Your task to perform on an android device: turn on the 24-hour format for clock Image 0: 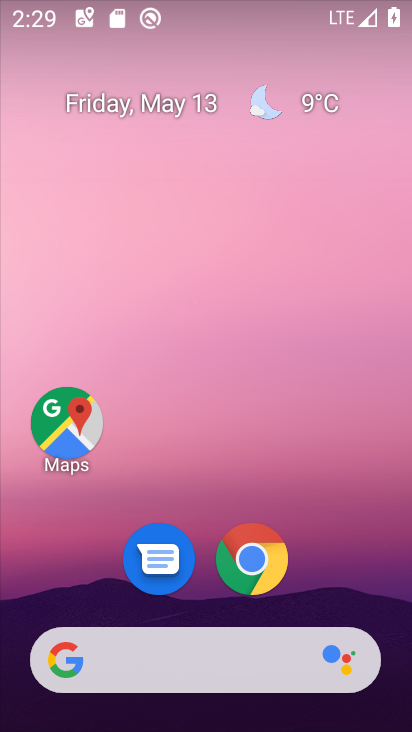
Step 0: drag from (367, 455) to (347, 328)
Your task to perform on an android device: turn on the 24-hour format for clock Image 1: 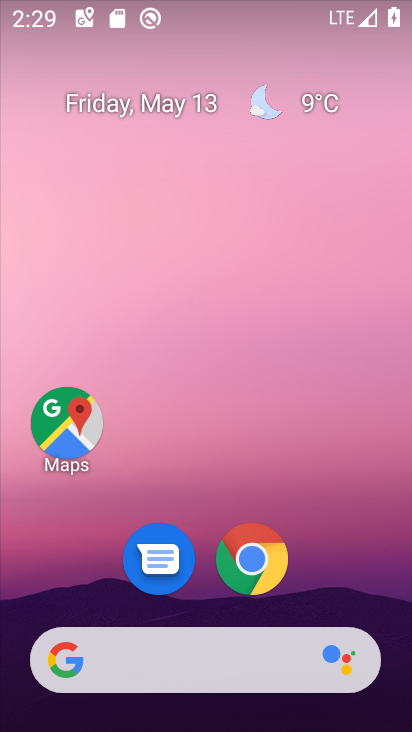
Step 1: drag from (408, 630) to (393, 225)
Your task to perform on an android device: turn on the 24-hour format for clock Image 2: 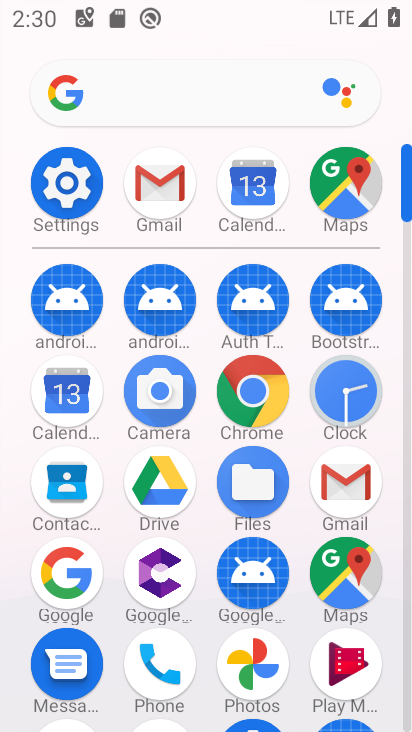
Step 2: click (60, 202)
Your task to perform on an android device: turn on the 24-hour format for clock Image 3: 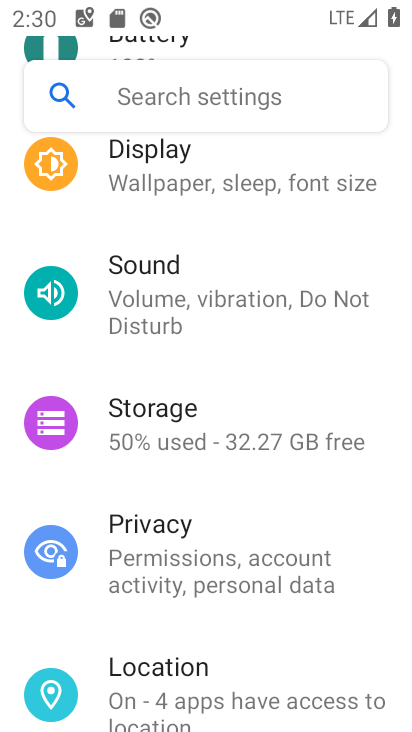
Step 3: drag from (376, 664) to (355, 323)
Your task to perform on an android device: turn on the 24-hour format for clock Image 4: 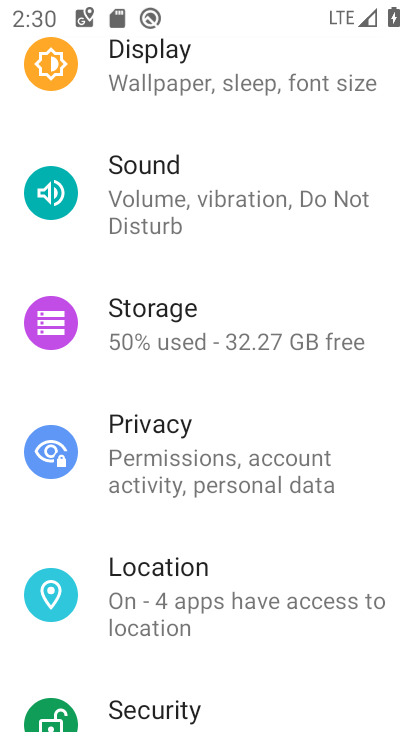
Step 4: drag from (364, 703) to (384, 394)
Your task to perform on an android device: turn on the 24-hour format for clock Image 5: 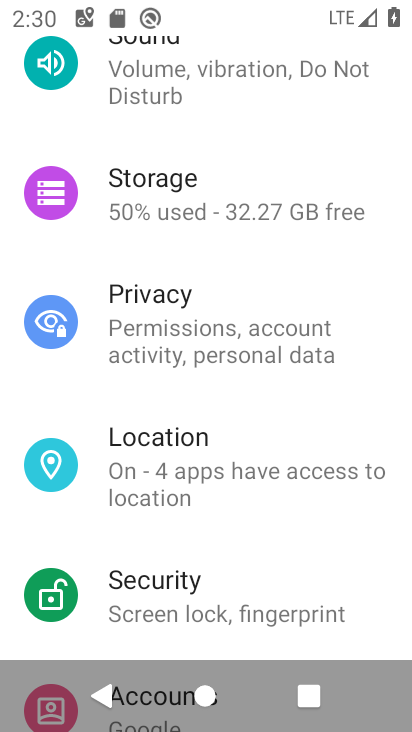
Step 5: press home button
Your task to perform on an android device: turn on the 24-hour format for clock Image 6: 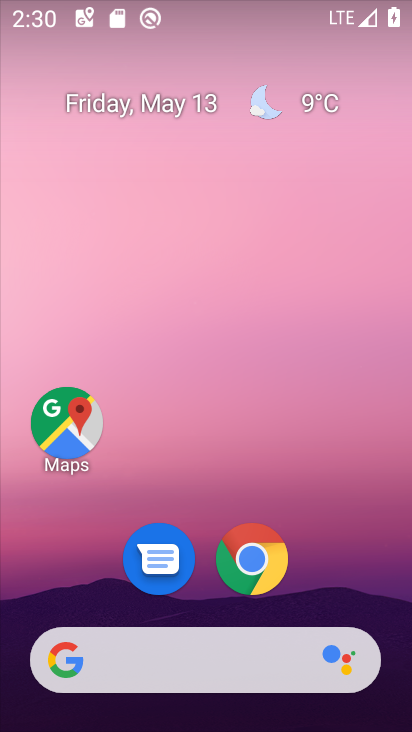
Step 6: drag from (391, 628) to (365, 300)
Your task to perform on an android device: turn on the 24-hour format for clock Image 7: 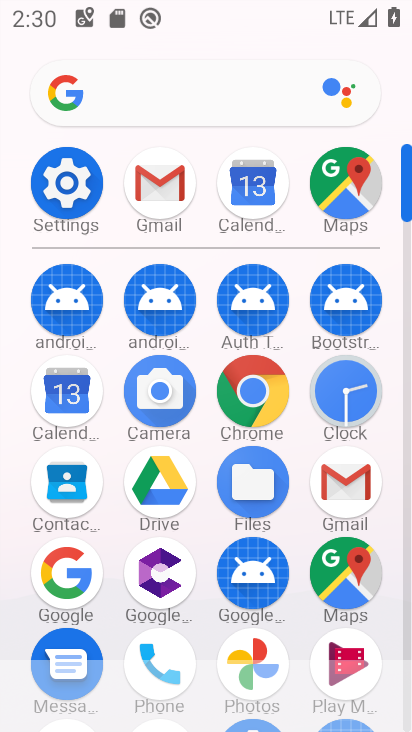
Step 7: click (61, 194)
Your task to perform on an android device: turn on the 24-hour format for clock Image 8: 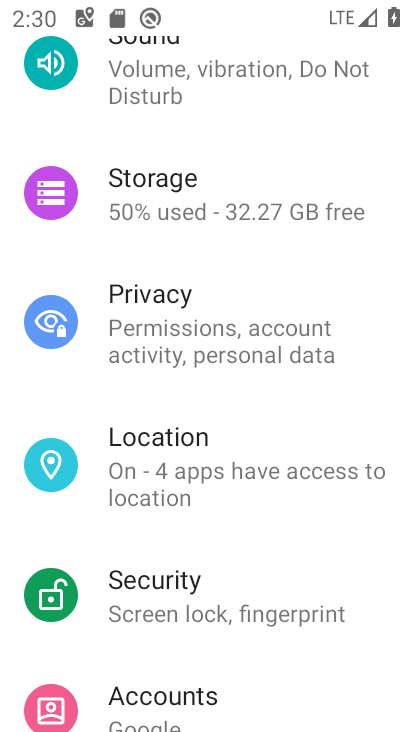
Step 8: drag from (274, 153) to (311, 534)
Your task to perform on an android device: turn on the 24-hour format for clock Image 9: 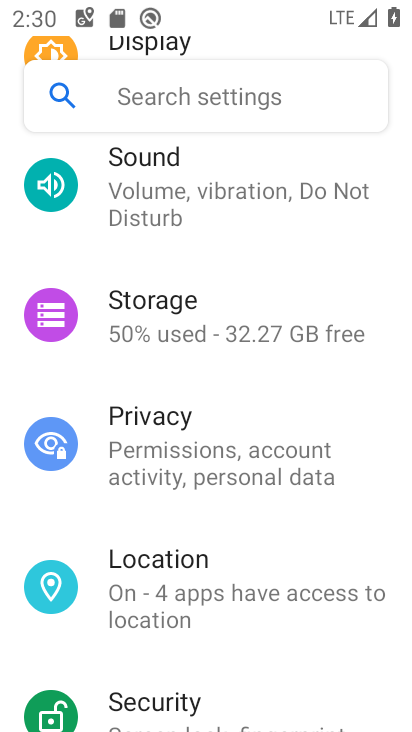
Step 9: drag from (275, 186) to (320, 473)
Your task to perform on an android device: turn on the 24-hour format for clock Image 10: 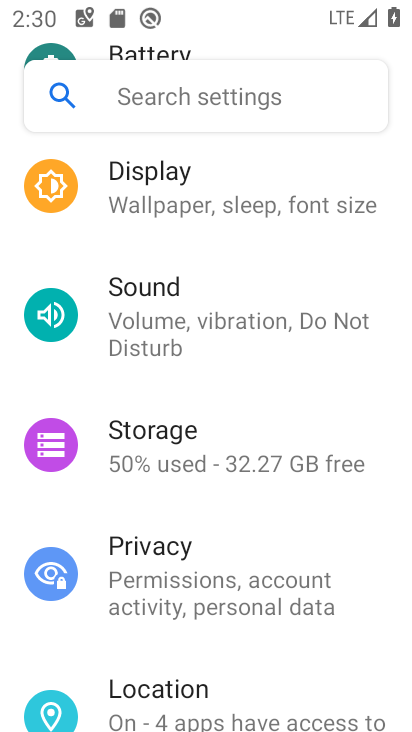
Step 10: press back button
Your task to perform on an android device: turn on the 24-hour format for clock Image 11: 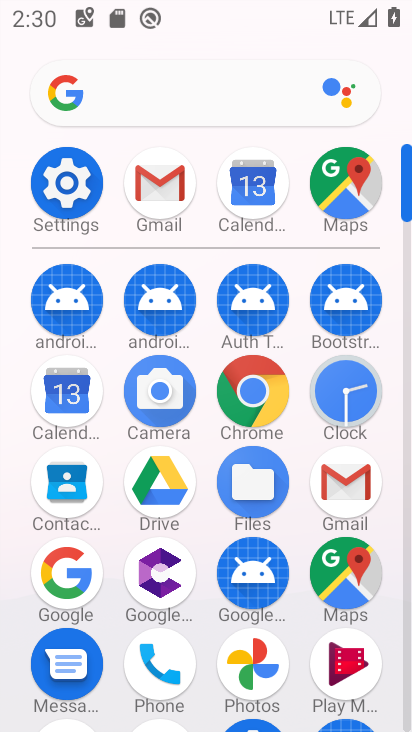
Step 11: click (342, 394)
Your task to perform on an android device: turn on the 24-hour format for clock Image 12: 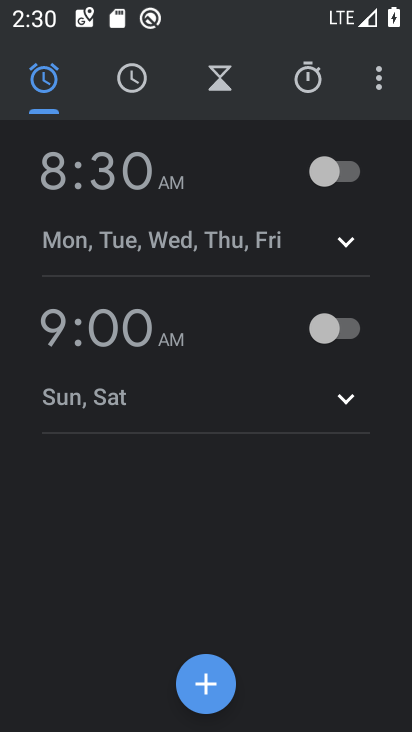
Step 12: click (383, 72)
Your task to perform on an android device: turn on the 24-hour format for clock Image 13: 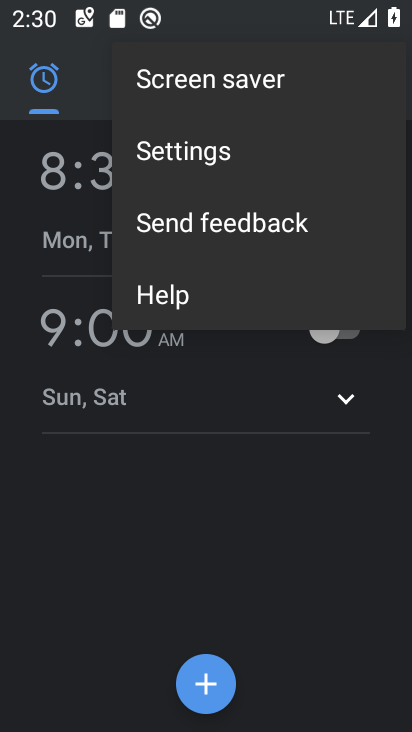
Step 13: click (211, 161)
Your task to perform on an android device: turn on the 24-hour format for clock Image 14: 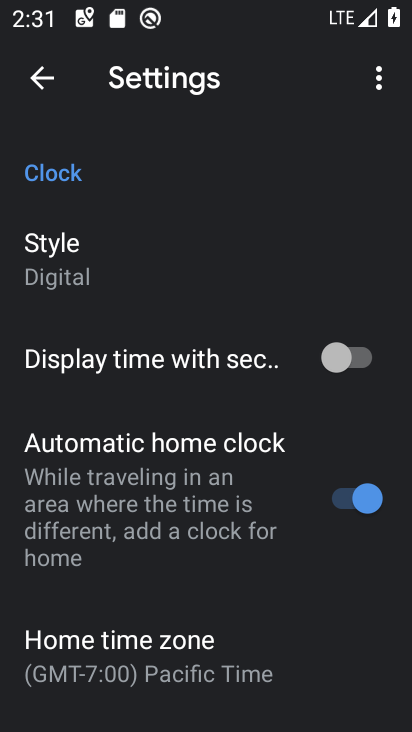
Step 14: drag from (297, 680) to (263, 414)
Your task to perform on an android device: turn on the 24-hour format for clock Image 15: 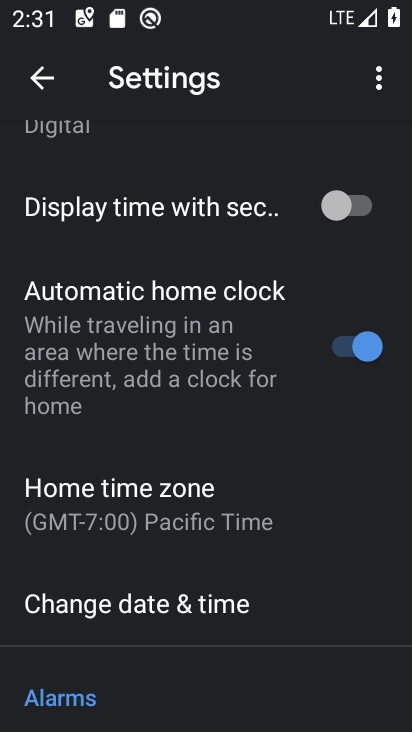
Step 15: drag from (195, 624) to (176, 302)
Your task to perform on an android device: turn on the 24-hour format for clock Image 16: 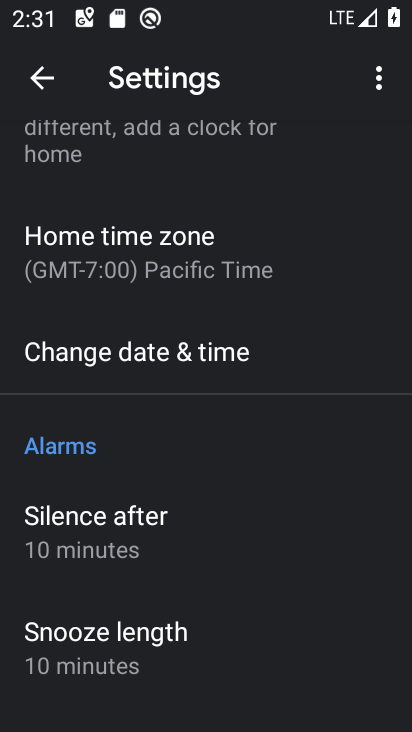
Step 16: click (109, 346)
Your task to perform on an android device: turn on the 24-hour format for clock Image 17: 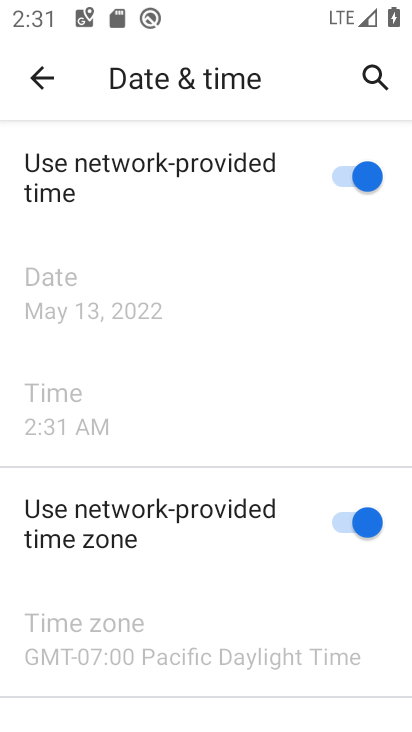
Step 17: click (347, 525)
Your task to perform on an android device: turn on the 24-hour format for clock Image 18: 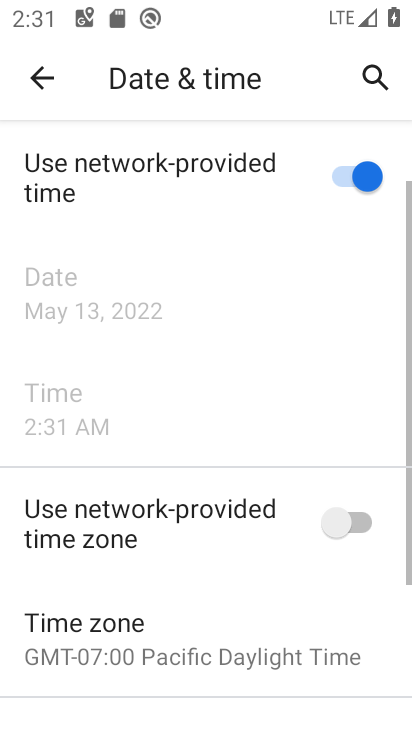
Step 18: click (357, 518)
Your task to perform on an android device: turn on the 24-hour format for clock Image 19: 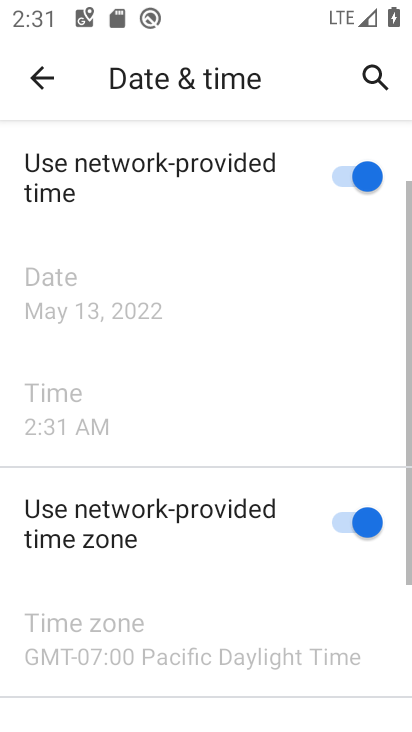
Step 19: drag from (204, 596) to (200, 305)
Your task to perform on an android device: turn on the 24-hour format for clock Image 20: 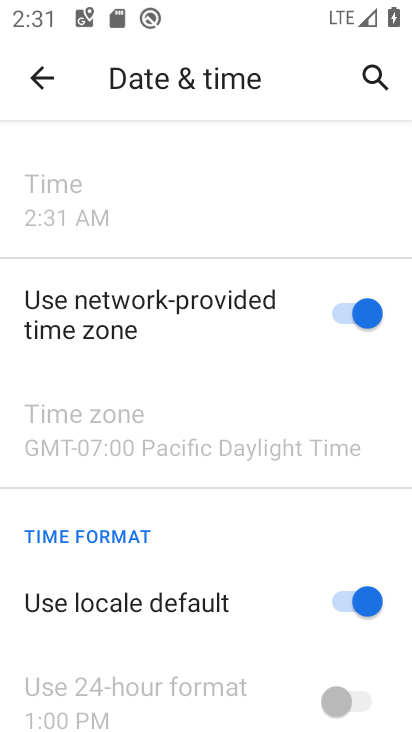
Step 20: drag from (199, 540) to (192, 344)
Your task to perform on an android device: turn on the 24-hour format for clock Image 21: 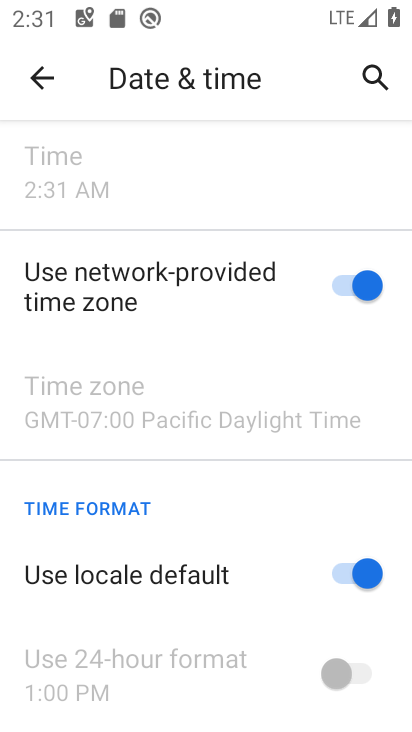
Step 21: click (348, 584)
Your task to perform on an android device: turn on the 24-hour format for clock Image 22: 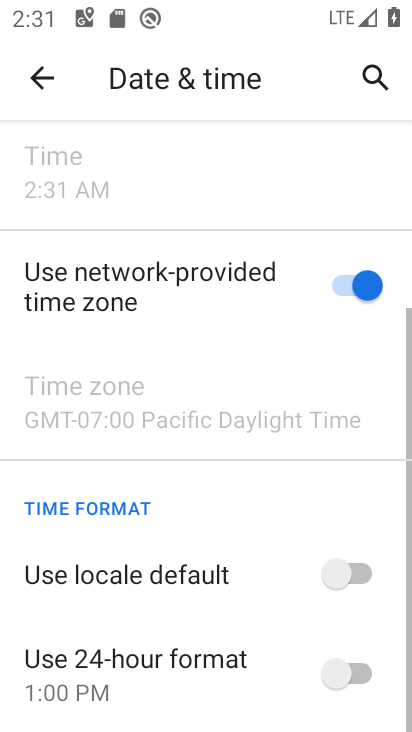
Step 22: click (370, 682)
Your task to perform on an android device: turn on the 24-hour format for clock Image 23: 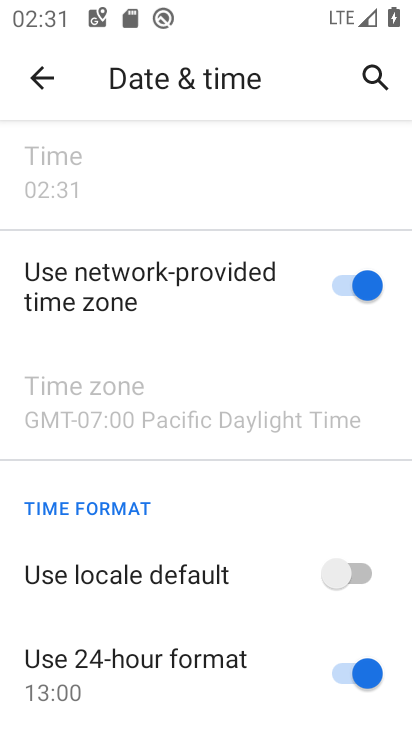
Step 23: task complete